Your task to perform on an android device: Open accessibility settings Image 0: 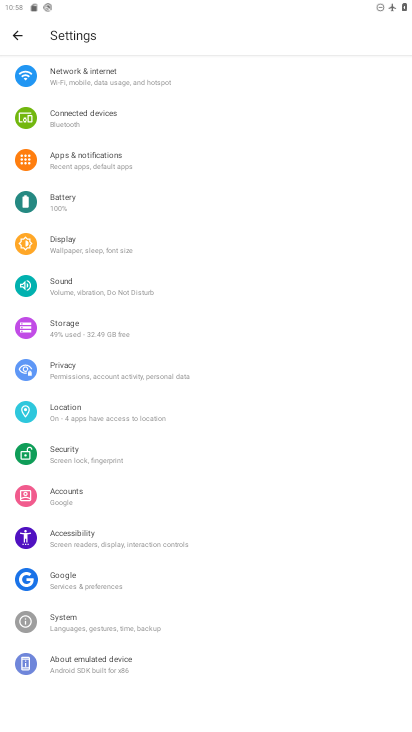
Step 0: click (65, 542)
Your task to perform on an android device: Open accessibility settings Image 1: 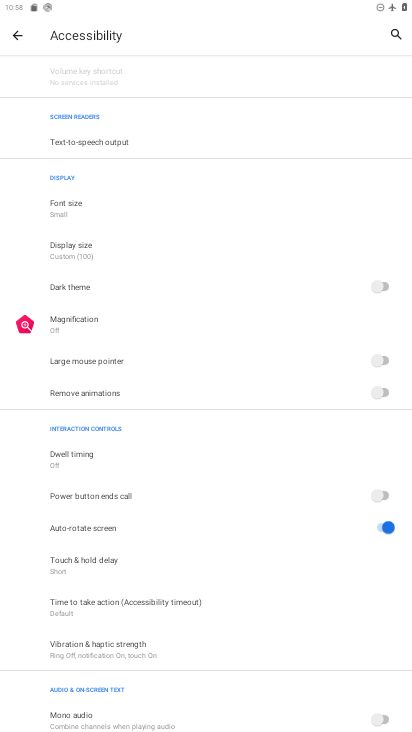
Step 1: task complete